Your task to perform on an android device: turn on improve location accuracy Image 0: 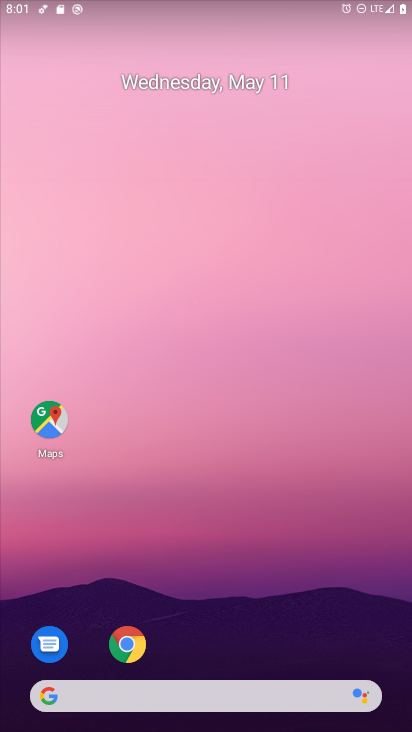
Step 0: drag from (219, 578) to (128, 182)
Your task to perform on an android device: turn on improve location accuracy Image 1: 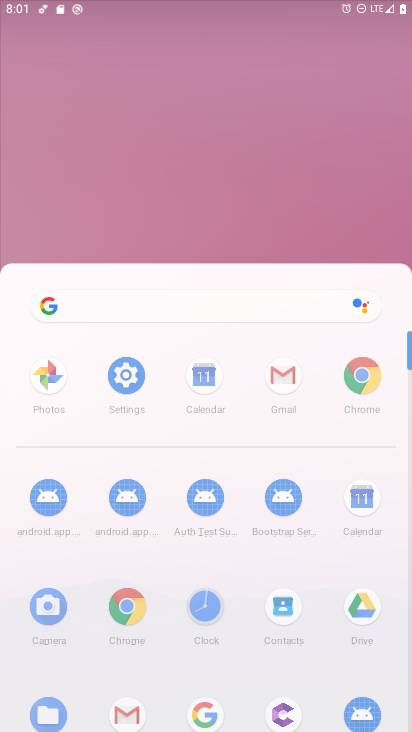
Step 1: click (128, 182)
Your task to perform on an android device: turn on improve location accuracy Image 2: 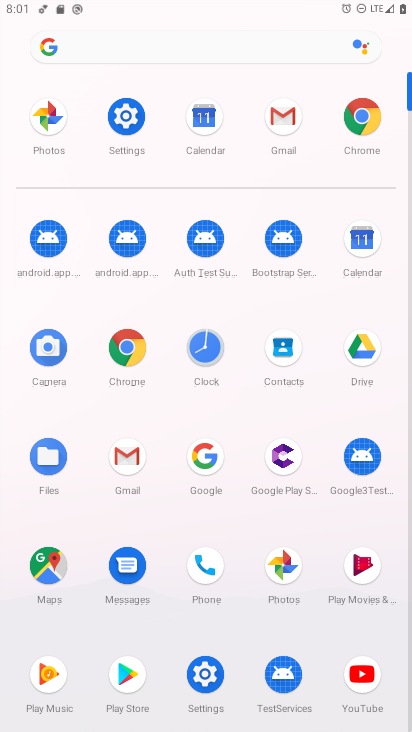
Step 2: click (121, 122)
Your task to perform on an android device: turn on improve location accuracy Image 3: 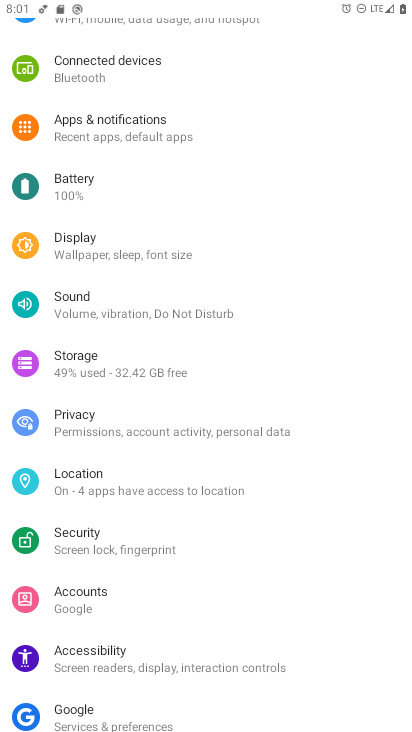
Step 3: click (68, 479)
Your task to perform on an android device: turn on improve location accuracy Image 4: 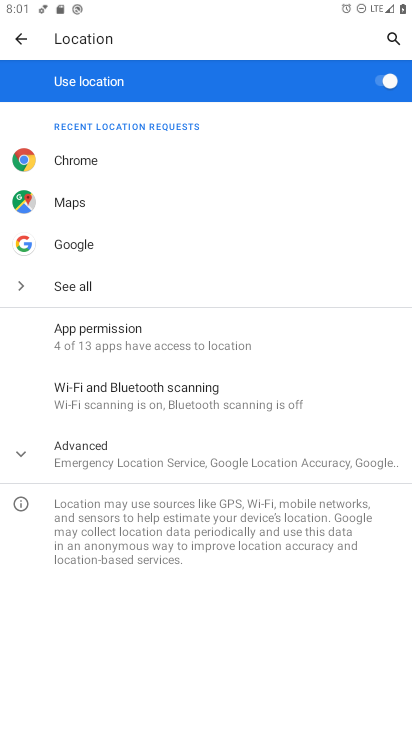
Step 4: click (21, 452)
Your task to perform on an android device: turn on improve location accuracy Image 5: 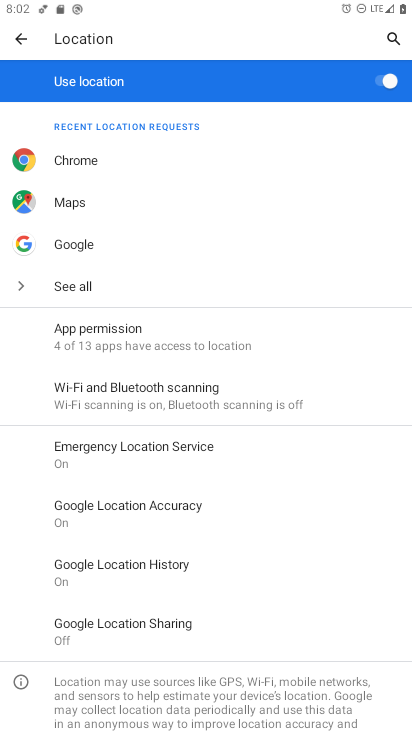
Step 5: click (160, 501)
Your task to perform on an android device: turn on improve location accuracy Image 6: 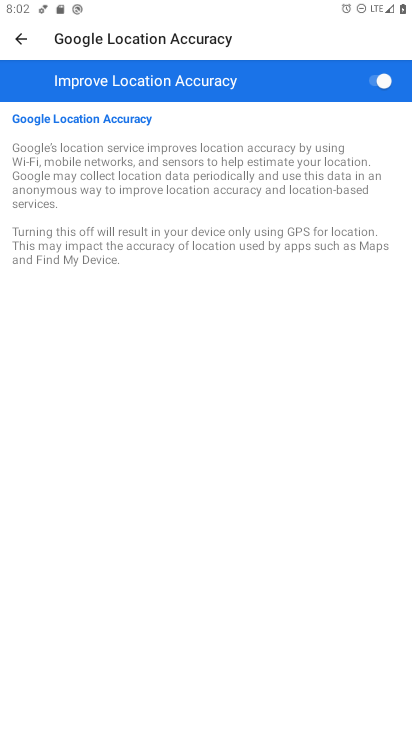
Step 6: task complete